Your task to perform on an android device: Show me popular games on the Play Store Image 0: 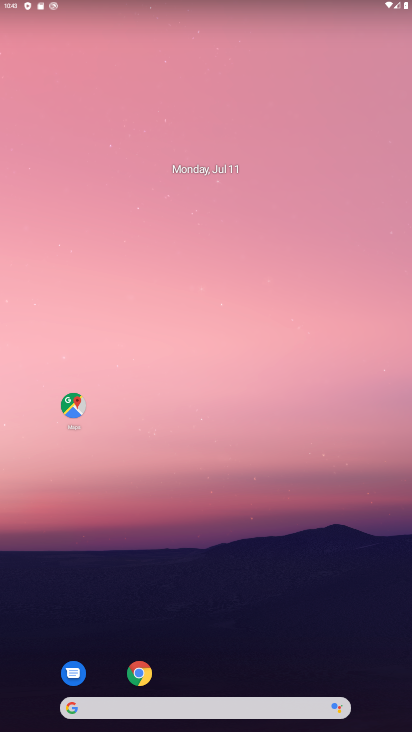
Step 0: drag from (201, 675) to (246, 215)
Your task to perform on an android device: Show me popular games on the Play Store Image 1: 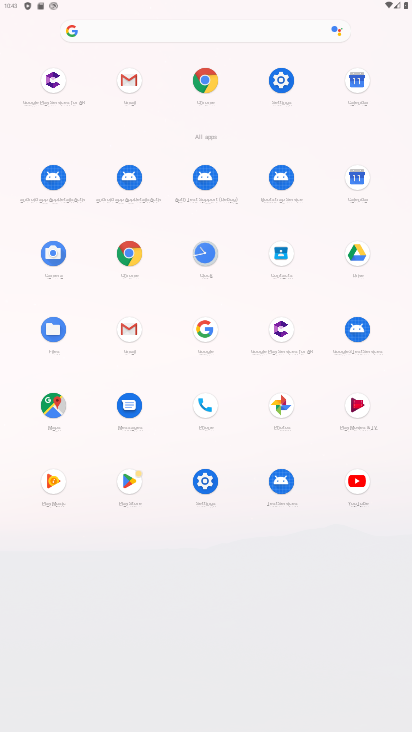
Step 1: click (138, 477)
Your task to perform on an android device: Show me popular games on the Play Store Image 2: 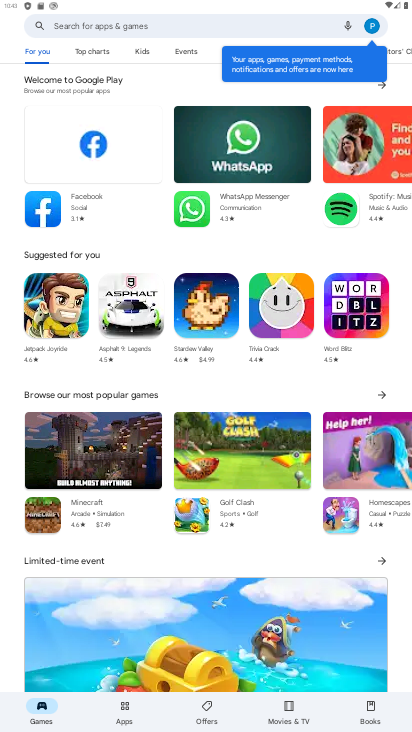
Step 2: click (383, 393)
Your task to perform on an android device: Show me popular games on the Play Store Image 3: 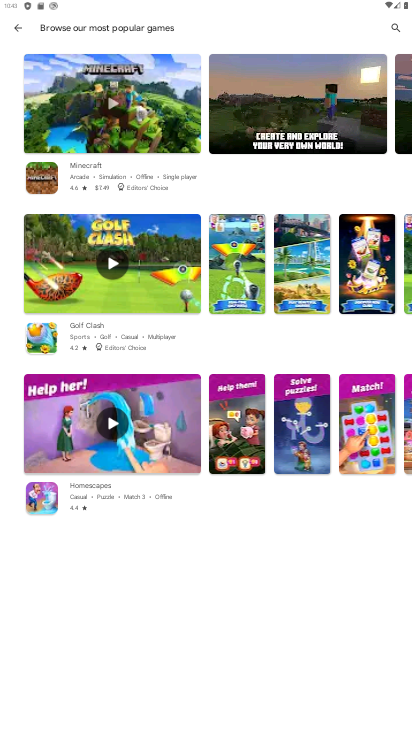
Step 3: task complete